Your task to perform on an android device: turn off picture-in-picture Image 0: 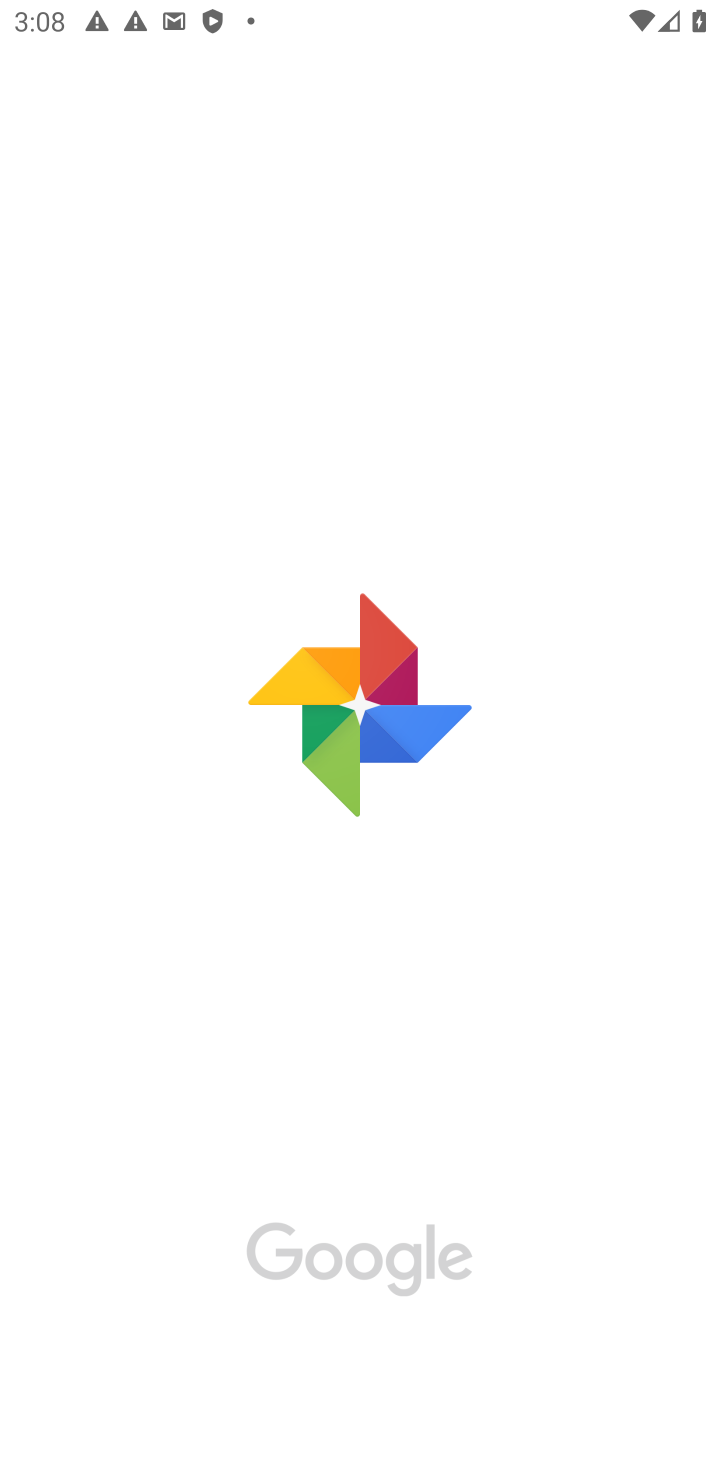
Step 0: press home button
Your task to perform on an android device: turn off picture-in-picture Image 1: 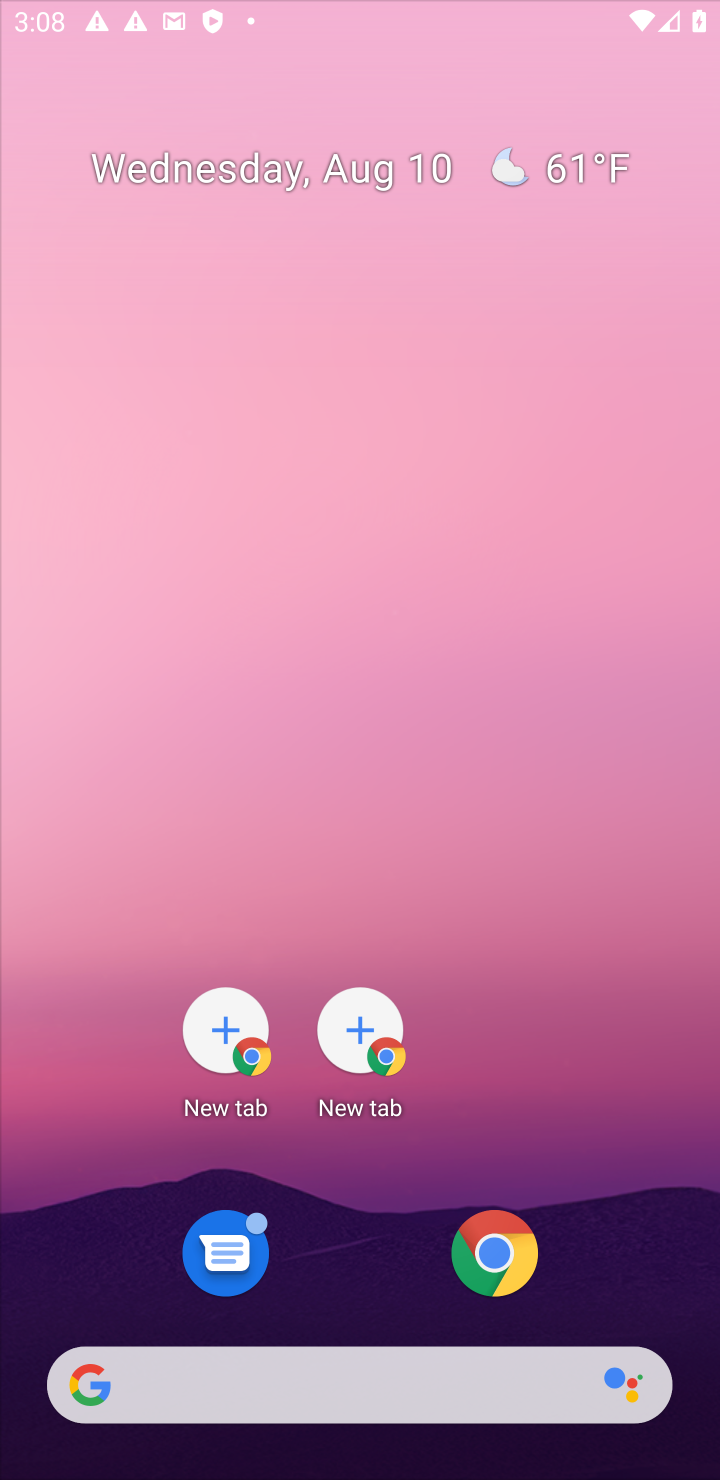
Step 1: task complete